Your task to perform on an android device: set an alarm Image 0: 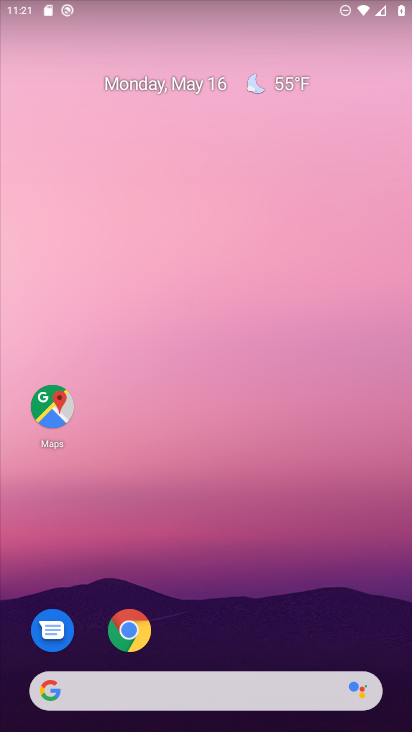
Step 0: drag from (202, 632) to (204, 168)
Your task to perform on an android device: set an alarm Image 1: 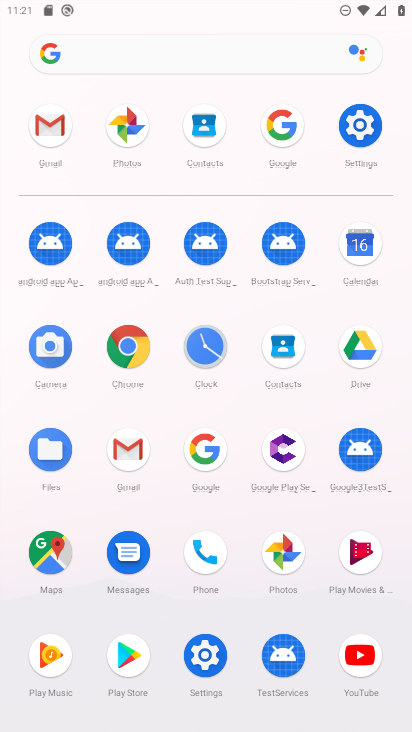
Step 1: click (210, 348)
Your task to perform on an android device: set an alarm Image 2: 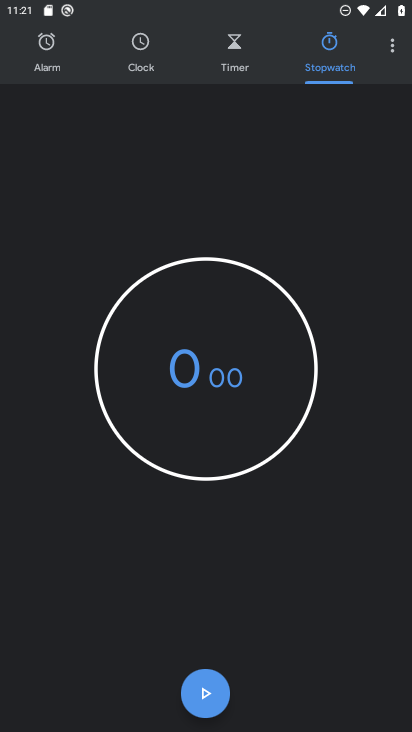
Step 2: click (54, 53)
Your task to perform on an android device: set an alarm Image 3: 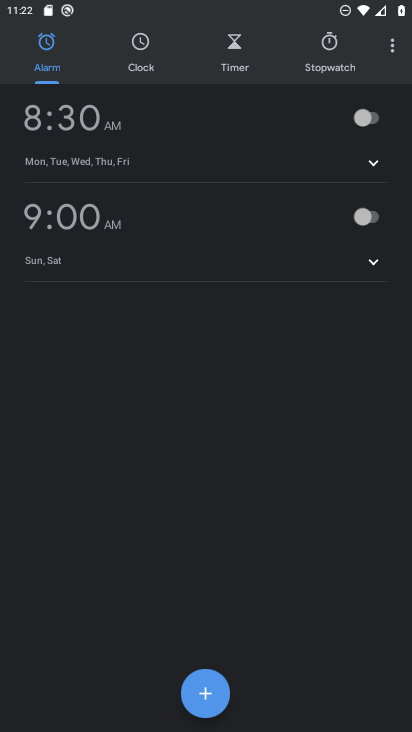
Step 3: click (383, 112)
Your task to perform on an android device: set an alarm Image 4: 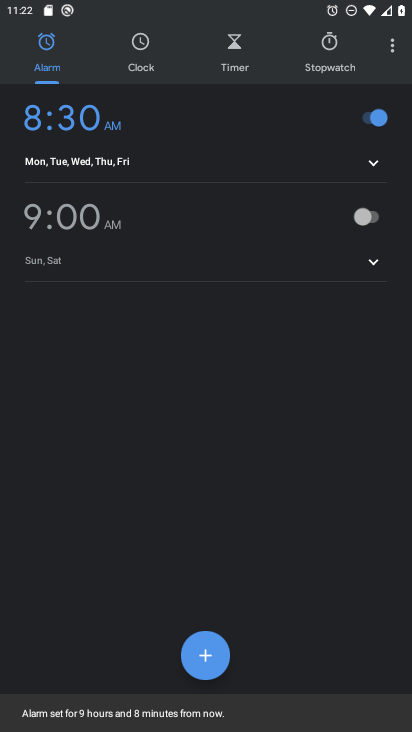
Step 4: task complete